Your task to perform on an android device: toggle pop-ups in chrome Image 0: 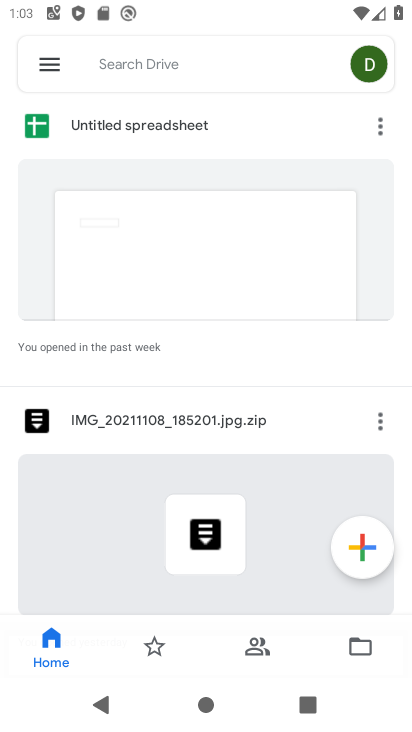
Step 0: press home button
Your task to perform on an android device: toggle pop-ups in chrome Image 1: 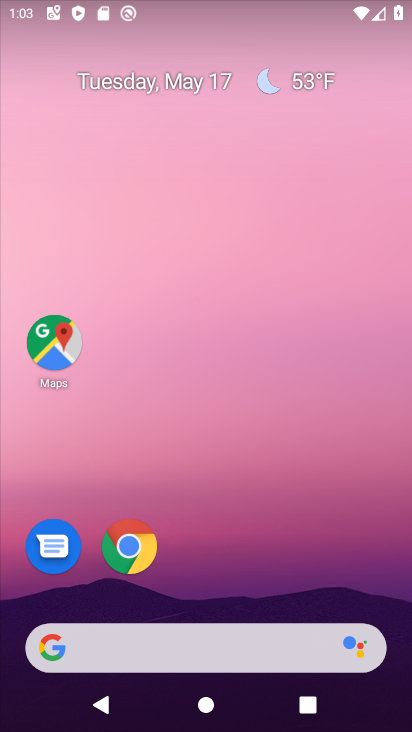
Step 1: click (106, 536)
Your task to perform on an android device: toggle pop-ups in chrome Image 2: 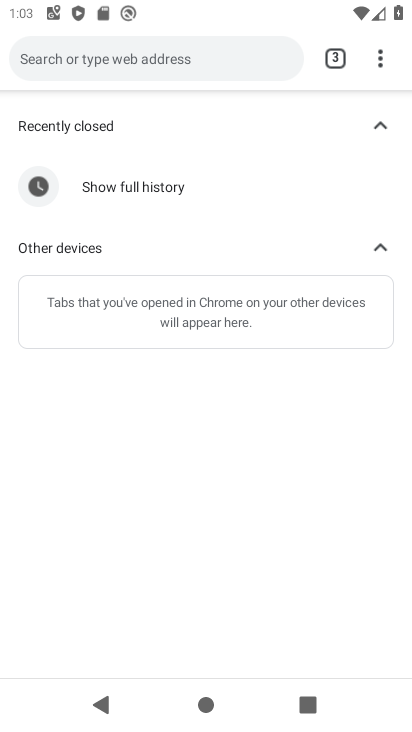
Step 2: click (377, 60)
Your task to perform on an android device: toggle pop-ups in chrome Image 3: 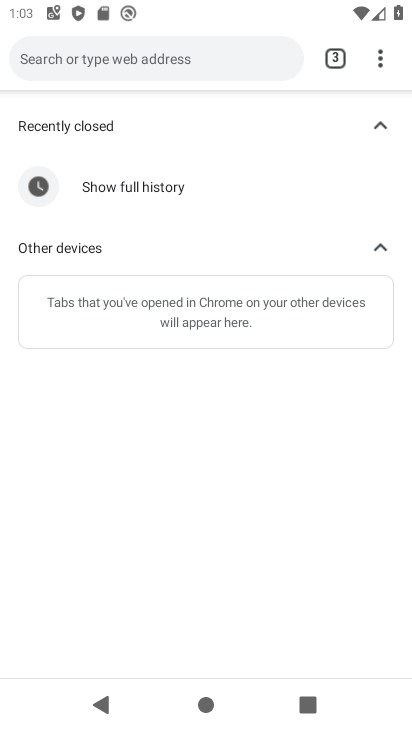
Step 3: drag from (375, 63) to (175, 492)
Your task to perform on an android device: toggle pop-ups in chrome Image 4: 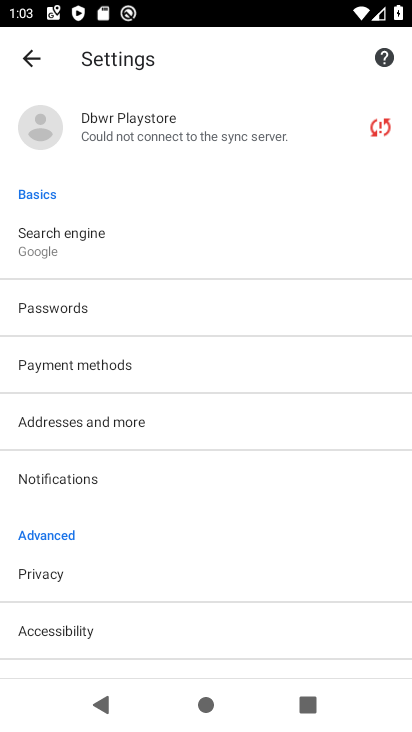
Step 4: drag from (192, 545) to (195, 267)
Your task to perform on an android device: toggle pop-ups in chrome Image 5: 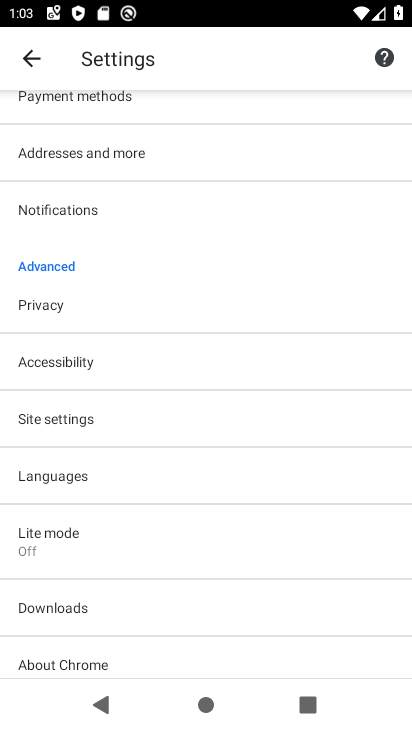
Step 5: click (117, 432)
Your task to perform on an android device: toggle pop-ups in chrome Image 6: 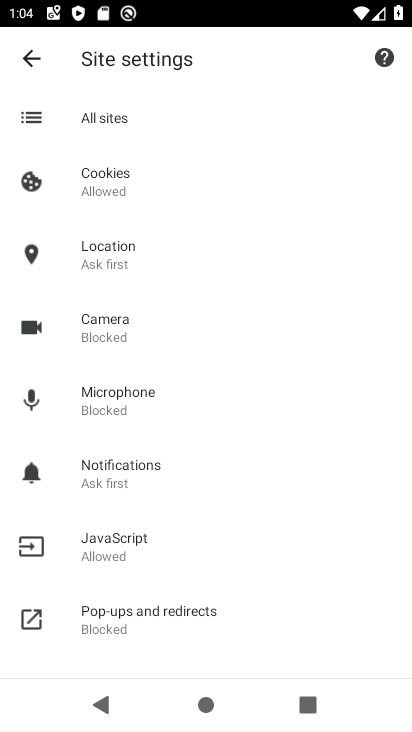
Step 6: click (184, 592)
Your task to perform on an android device: toggle pop-ups in chrome Image 7: 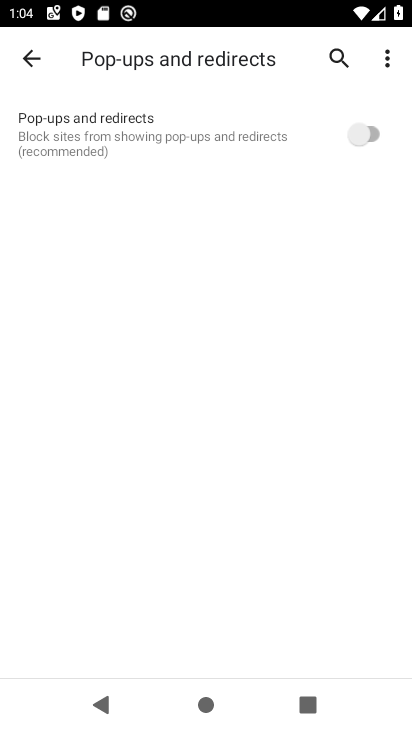
Step 7: click (369, 127)
Your task to perform on an android device: toggle pop-ups in chrome Image 8: 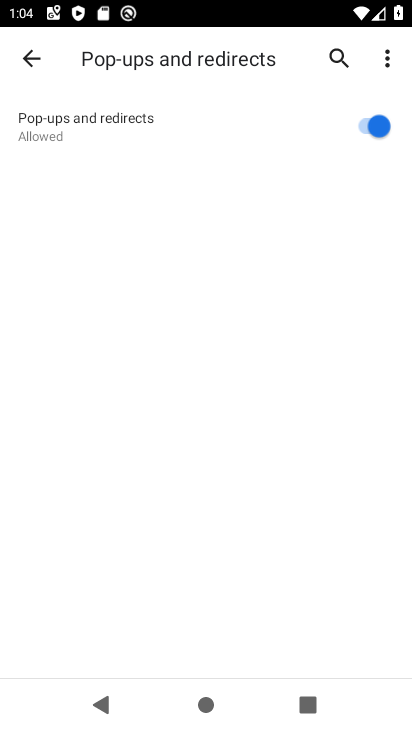
Step 8: task complete